Your task to perform on an android device: Go to wifi settings Image 0: 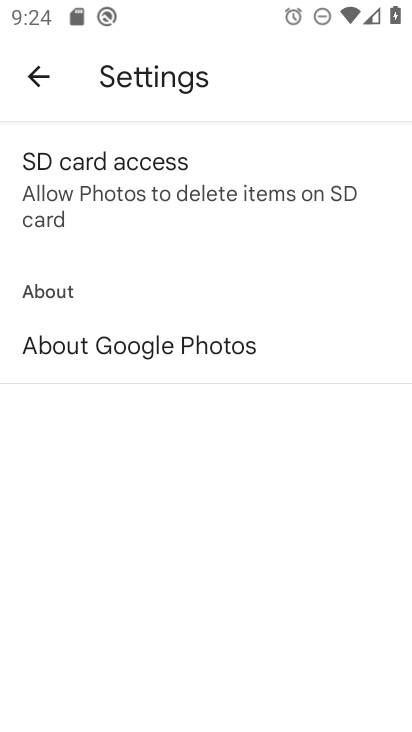
Step 0: press home button
Your task to perform on an android device: Go to wifi settings Image 1: 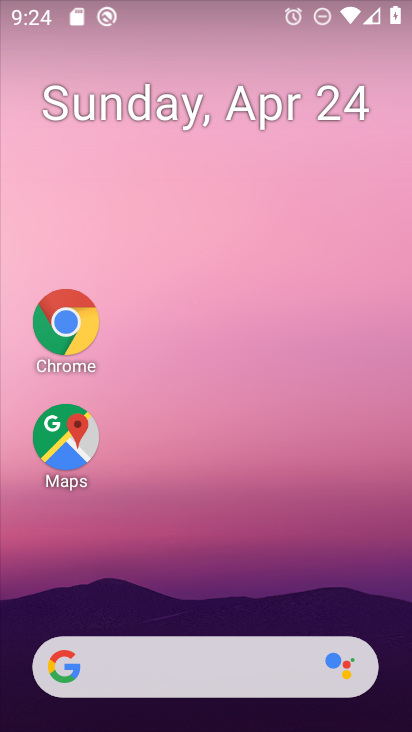
Step 1: drag from (223, 552) to (186, 0)
Your task to perform on an android device: Go to wifi settings Image 2: 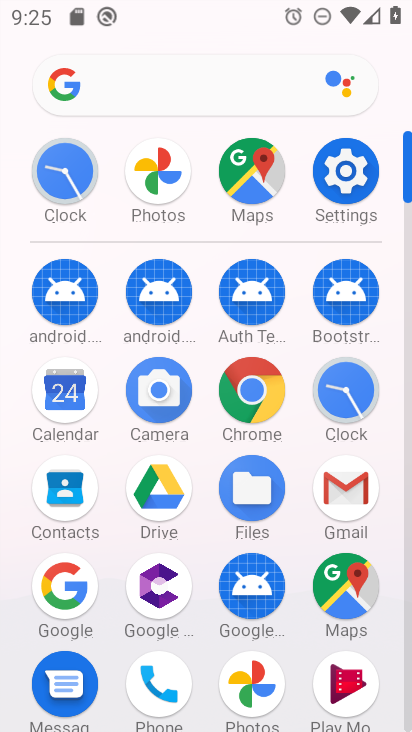
Step 2: click (337, 170)
Your task to perform on an android device: Go to wifi settings Image 3: 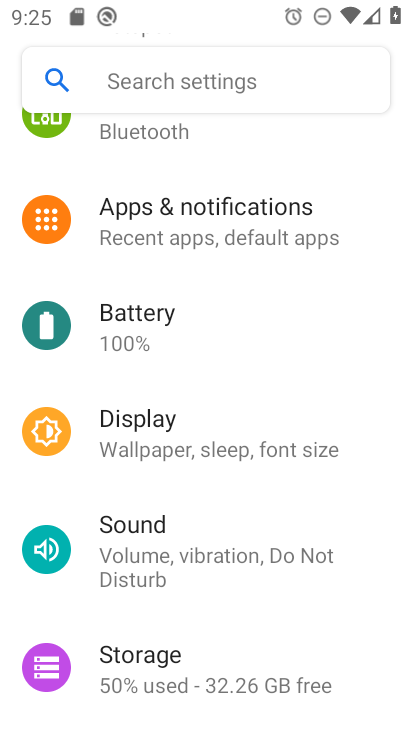
Step 3: drag from (224, 180) to (327, 576)
Your task to perform on an android device: Go to wifi settings Image 4: 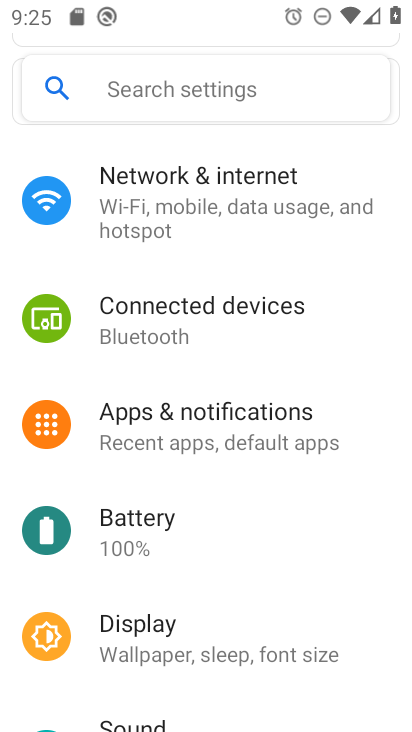
Step 4: click (190, 187)
Your task to perform on an android device: Go to wifi settings Image 5: 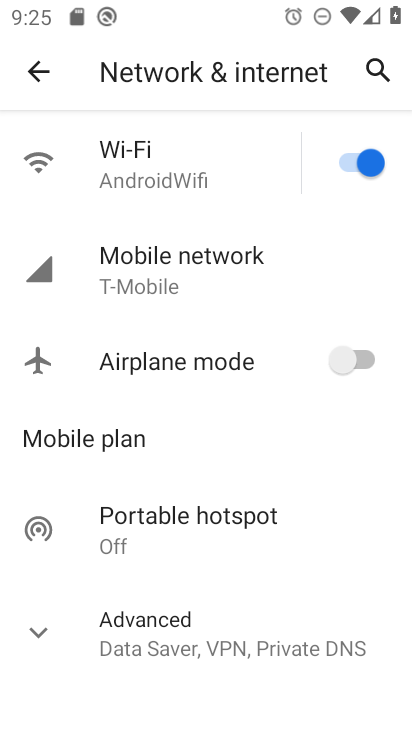
Step 5: click (127, 159)
Your task to perform on an android device: Go to wifi settings Image 6: 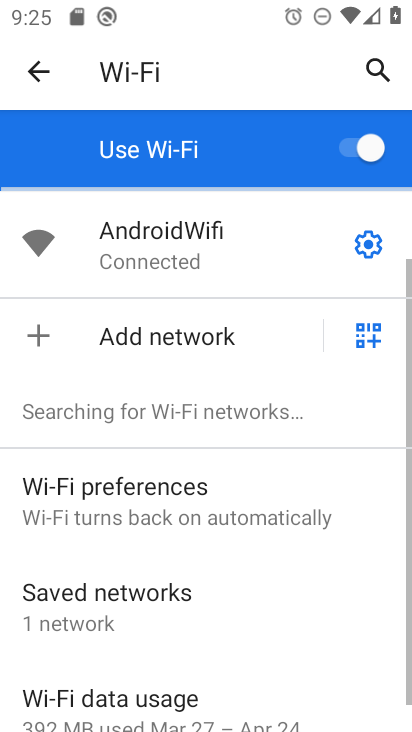
Step 6: task complete